Your task to perform on an android device: What's the weather? Image 0: 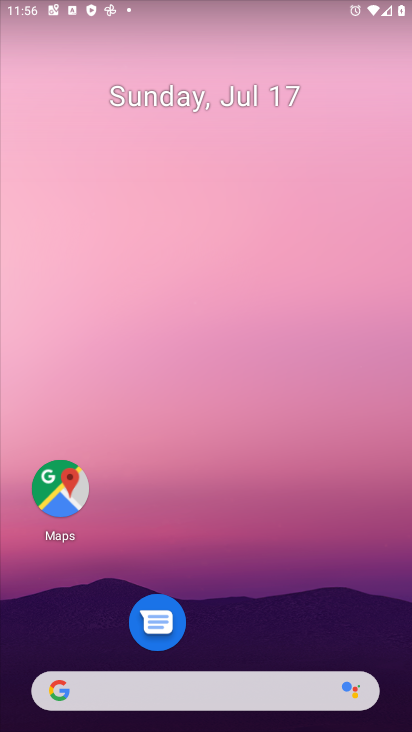
Step 0: click (248, 693)
Your task to perform on an android device: What's the weather? Image 1: 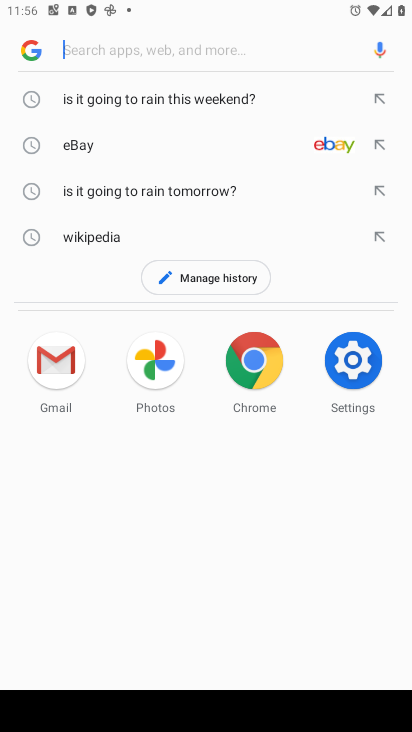
Step 1: type "whats the weather "
Your task to perform on an android device: What's the weather? Image 2: 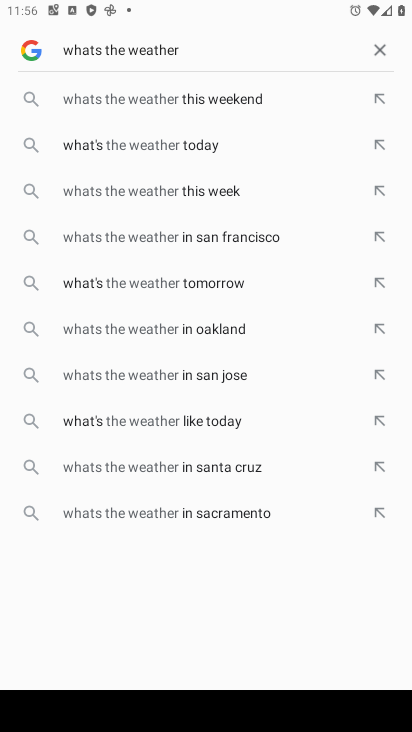
Step 2: press enter
Your task to perform on an android device: What's the weather? Image 3: 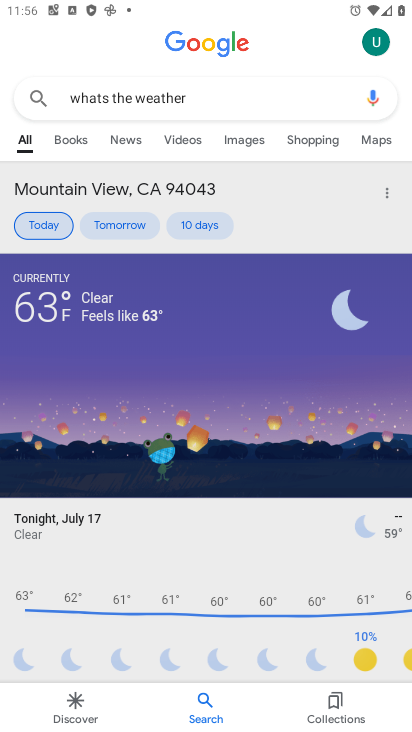
Step 3: task complete